Your task to perform on an android device: Open location settings Image 0: 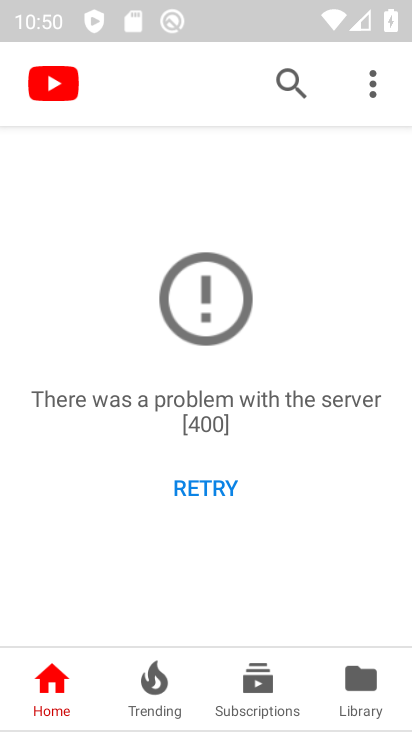
Step 0: press home button
Your task to perform on an android device: Open location settings Image 1: 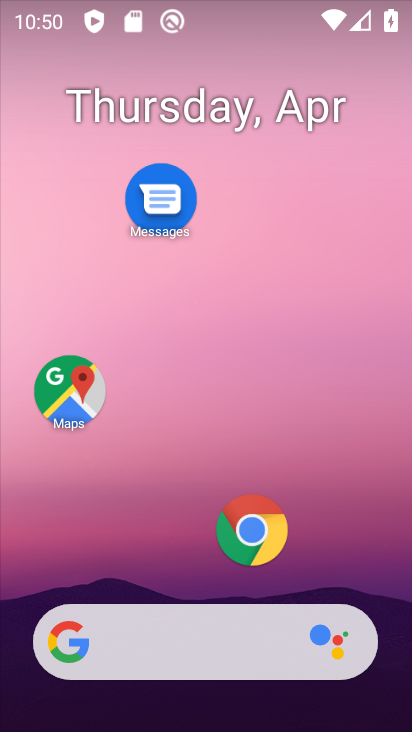
Step 1: drag from (205, 696) to (184, 195)
Your task to perform on an android device: Open location settings Image 2: 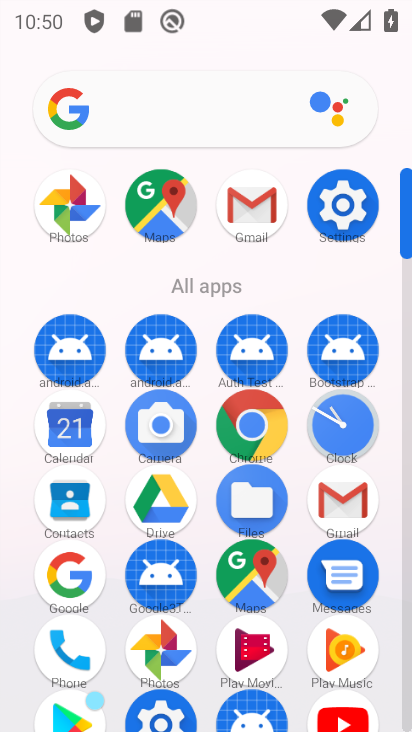
Step 2: click (345, 204)
Your task to perform on an android device: Open location settings Image 3: 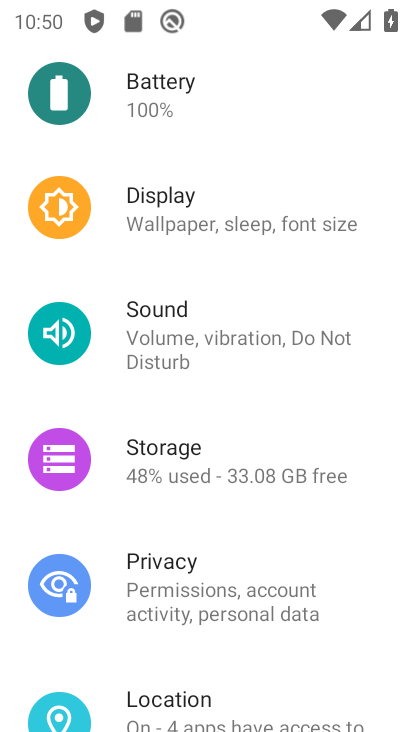
Step 3: drag from (218, 660) to (203, 368)
Your task to perform on an android device: Open location settings Image 4: 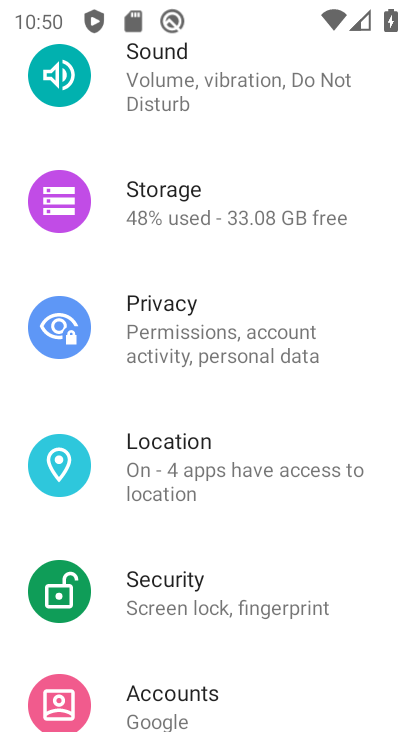
Step 4: click (167, 467)
Your task to perform on an android device: Open location settings Image 5: 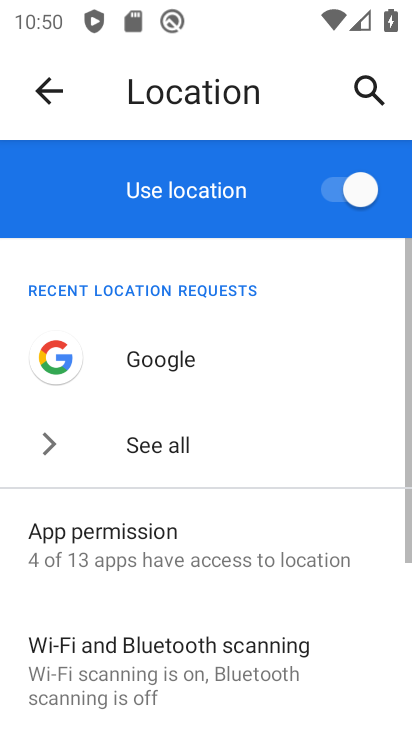
Step 5: task complete